Your task to perform on an android device: move a message to another label in the gmail app Image 0: 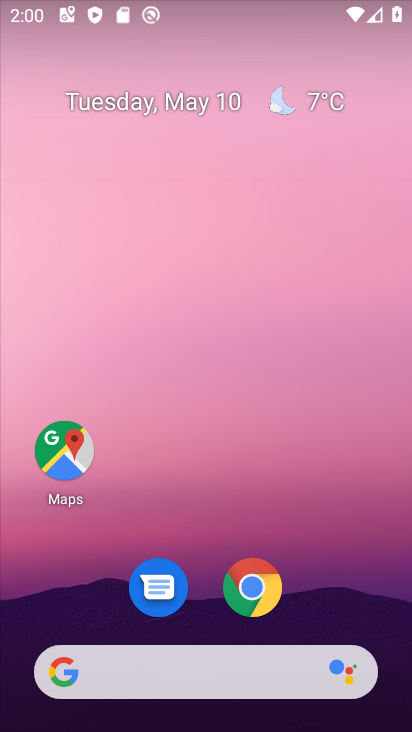
Step 0: drag from (330, 582) to (299, 60)
Your task to perform on an android device: move a message to another label in the gmail app Image 1: 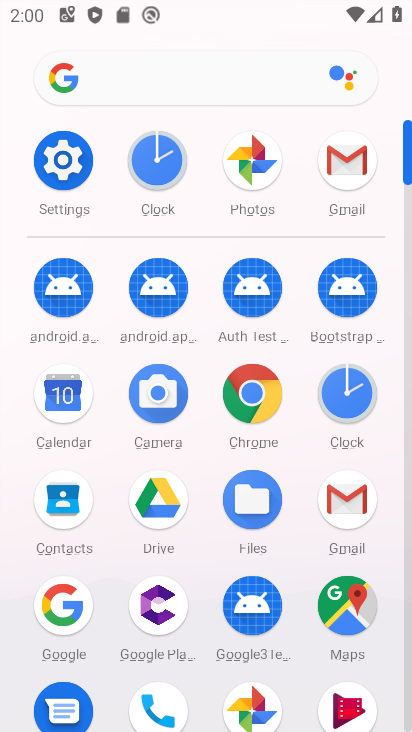
Step 1: click (350, 506)
Your task to perform on an android device: move a message to another label in the gmail app Image 2: 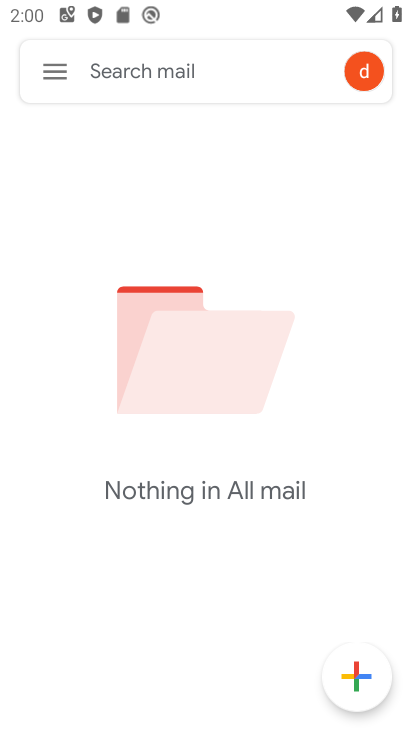
Step 2: click (52, 73)
Your task to perform on an android device: move a message to another label in the gmail app Image 3: 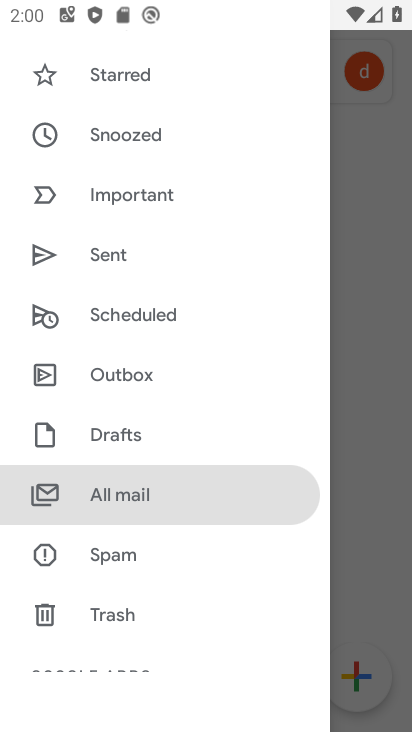
Step 3: click (138, 491)
Your task to perform on an android device: move a message to another label in the gmail app Image 4: 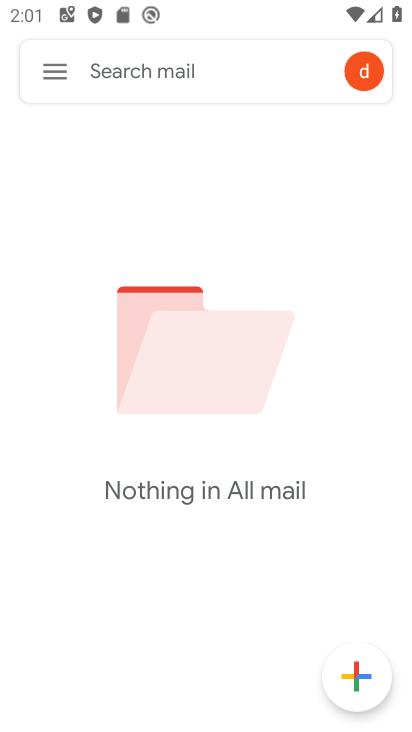
Step 4: task complete